Your task to perform on an android device: Open settings Image 0: 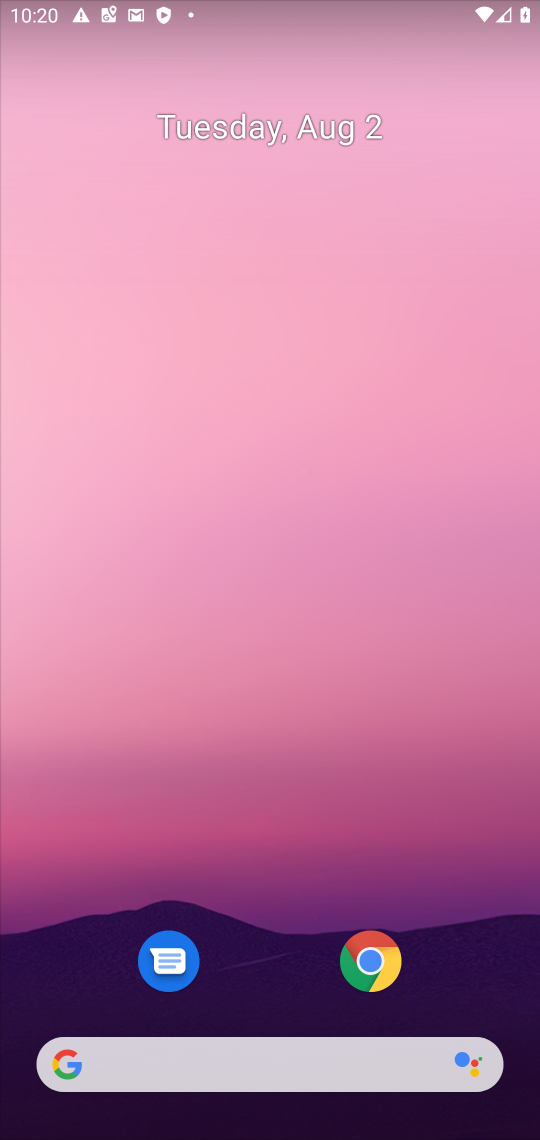
Step 0: press home button
Your task to perform on an android device: Open settings Image 1: 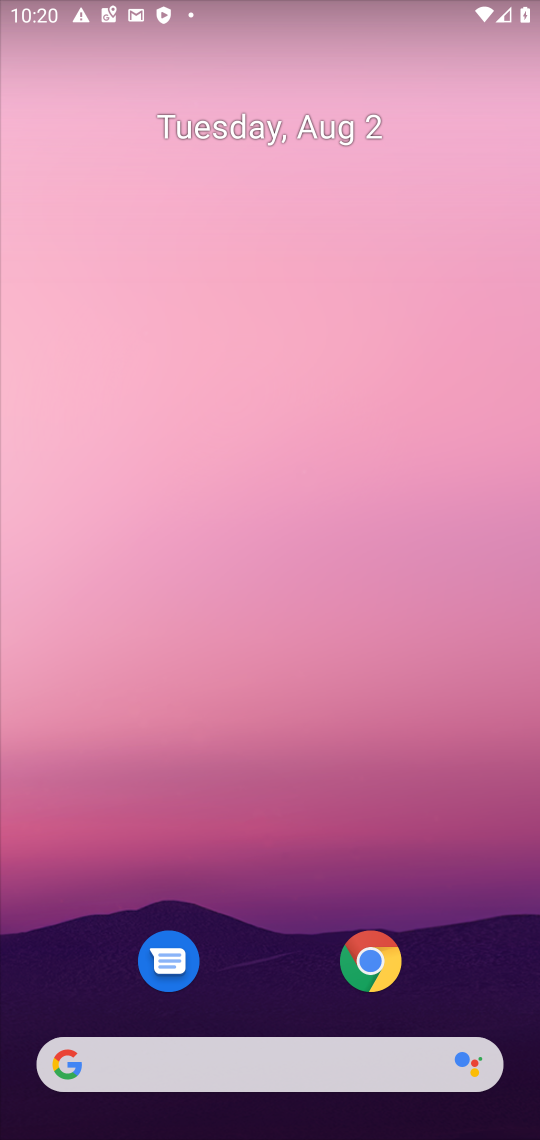
Step 1: drag from (282, 937) to (278, 450)
Your task to perform on an android device: Open settings Image 2: 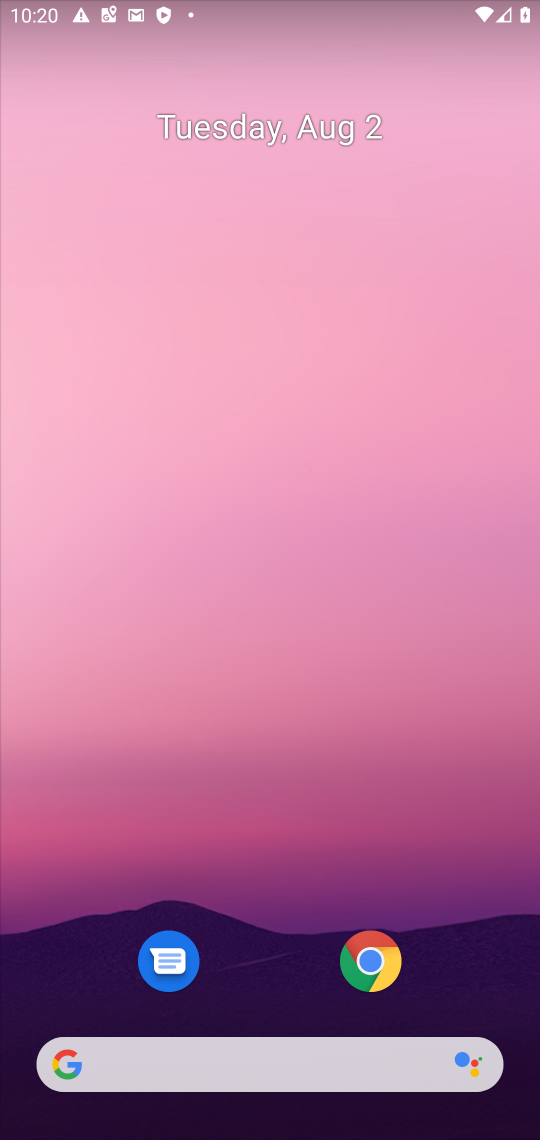
Step 2: drag from (271, 978) to (292, 145)
Your task to perform on an android device: Open settings Image 3: 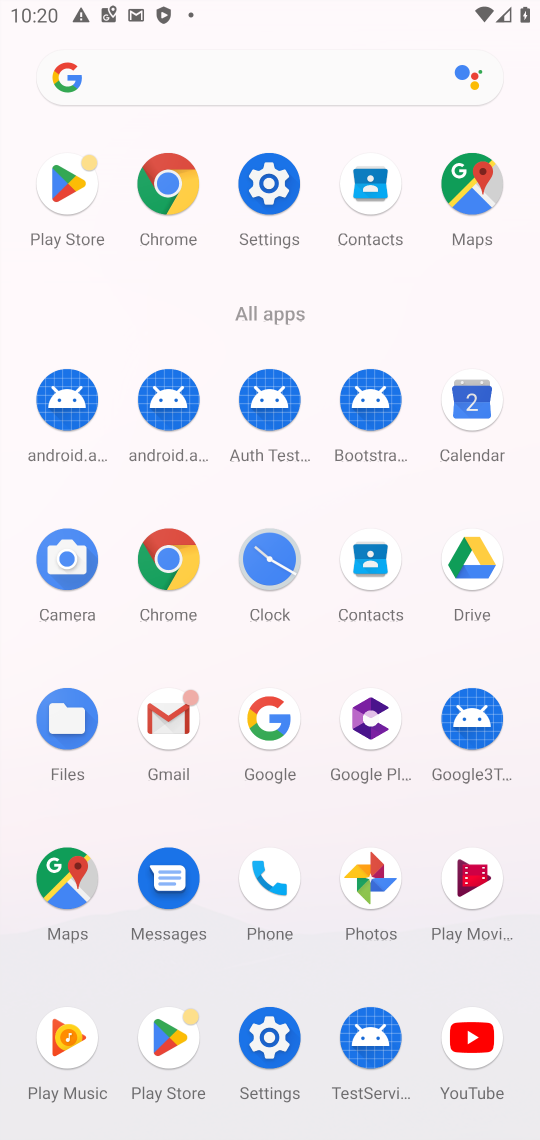
Step 3: click (286, 156)
Your task to perform on an android device: Open settings Image 4: 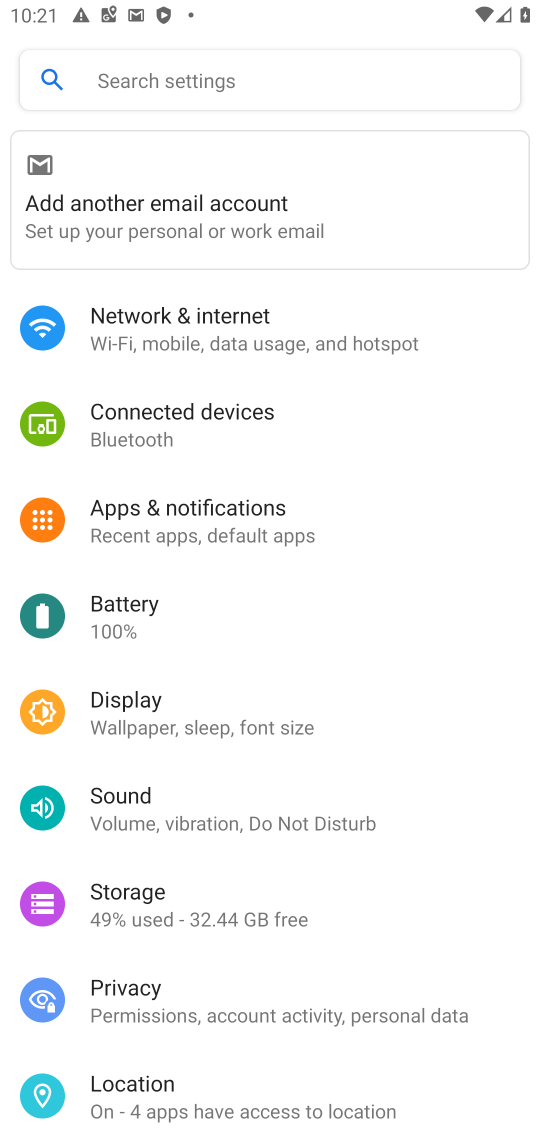
Step 4: task complete